Your task to perform on an android device: Empty the shopping cart on newegg.com. Add "apple airpods" to the cart on newegg.com Image 0: 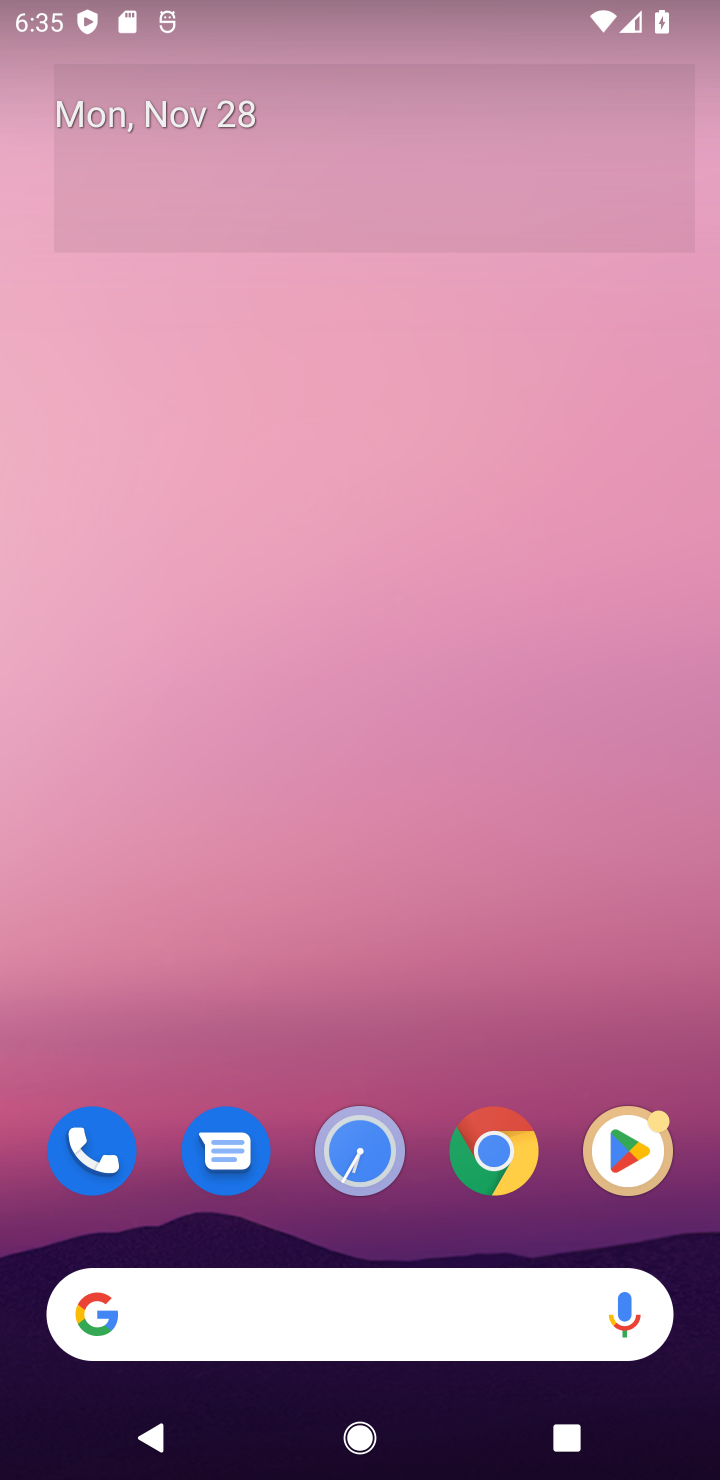
Step 0: click (521, 1304)
Your task to perform on an android device: Empty the shopping cart on newegg.com. Add "apple airpods" to the cart on newegg.com Image 1: 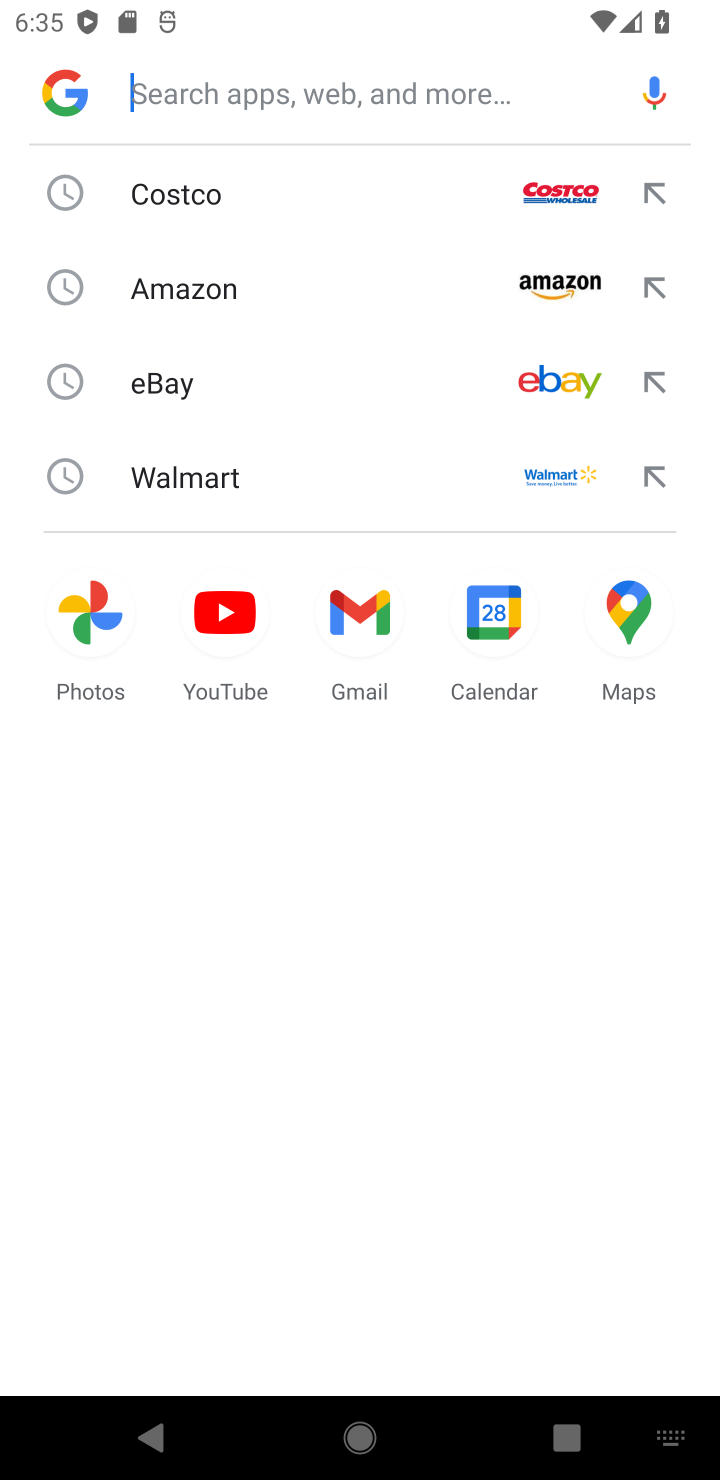
Step 1: type "apple airpod"
Your task to perform on an android device: Empty the shopping cart on newegg.com. Add "apple airpods" to the cart on newegg.com Image 2: 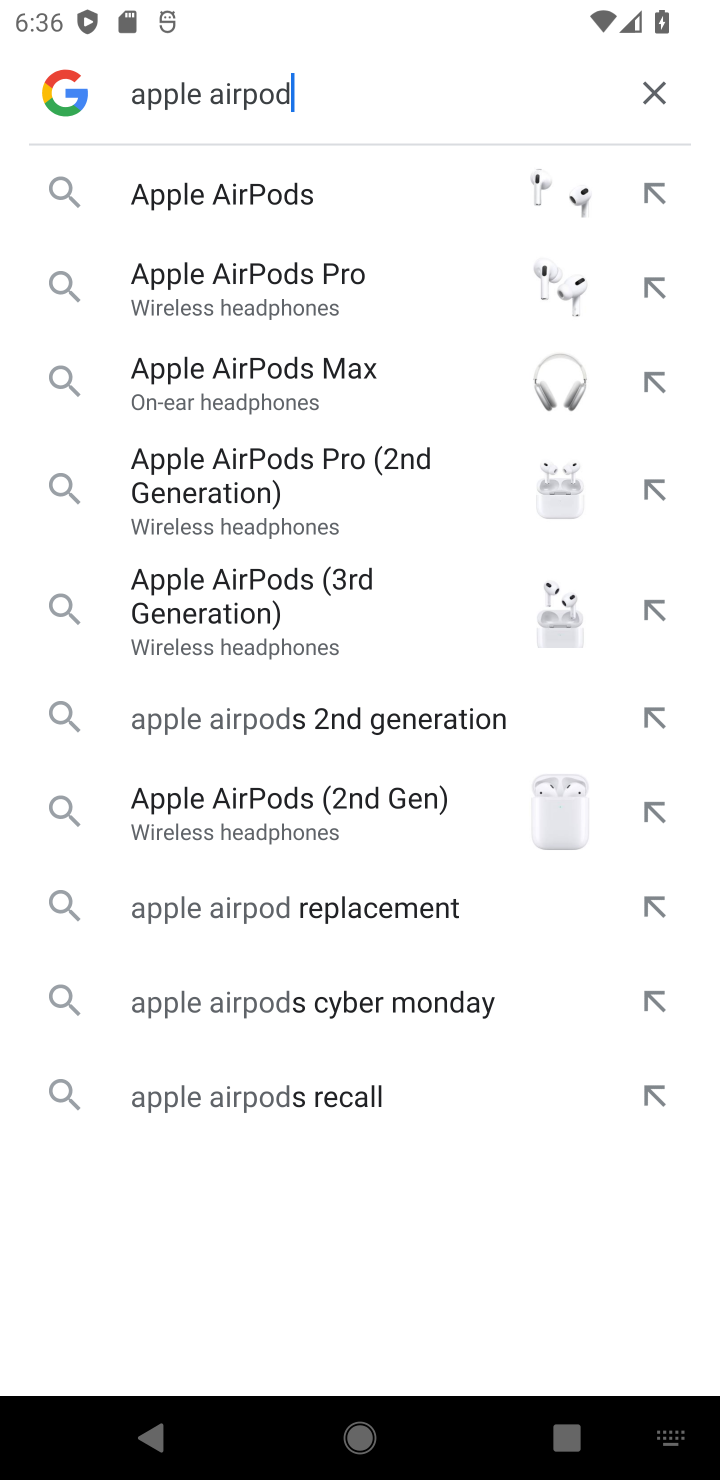
Step 2: click (232, 227)
Your task to perform on an android device: Empty the shopping cart on newegg.com. Add "apple airpods" to the cart on newegg.com Image 3: 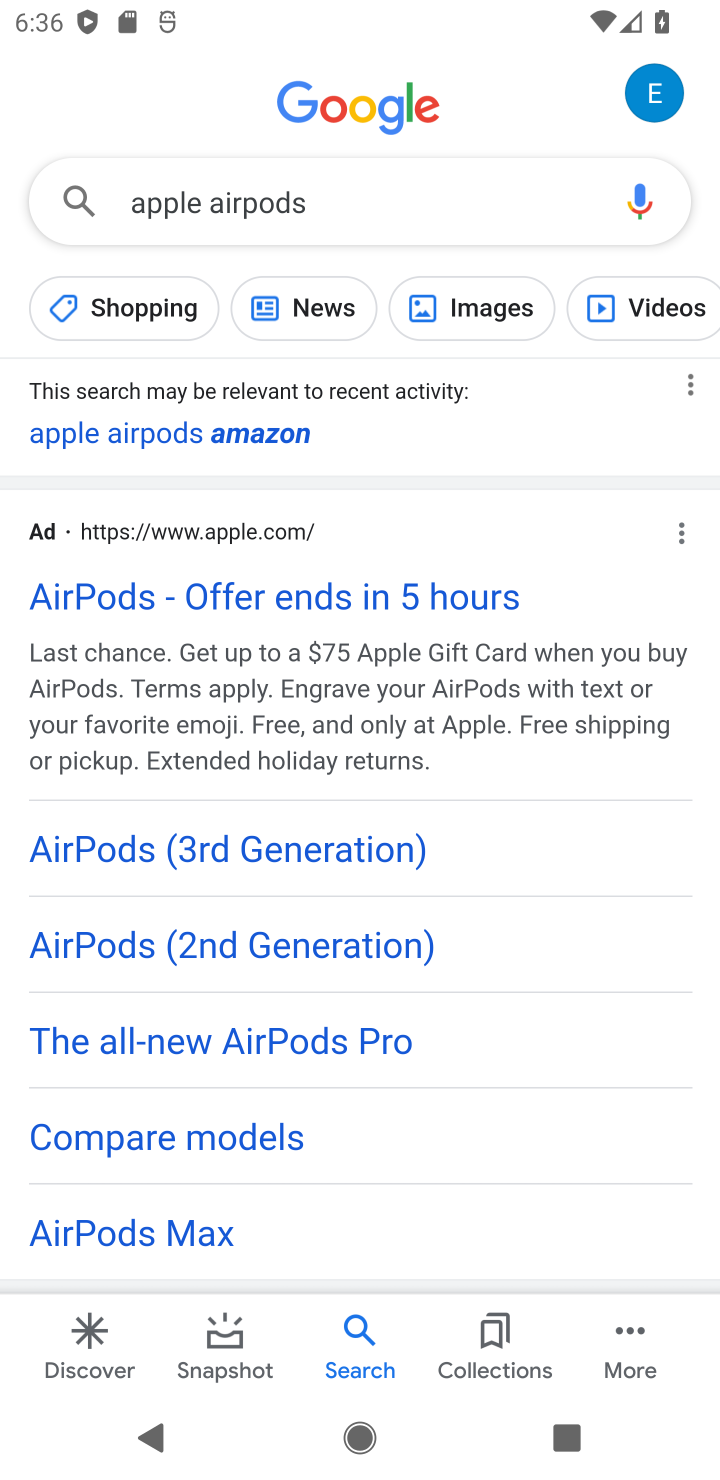
Step 3: click (131, 594)
Your task to perform on an android device: Empty the shopping cart on newegg.com. Add "apple airpods" to the cart on newegg.com Image 4: 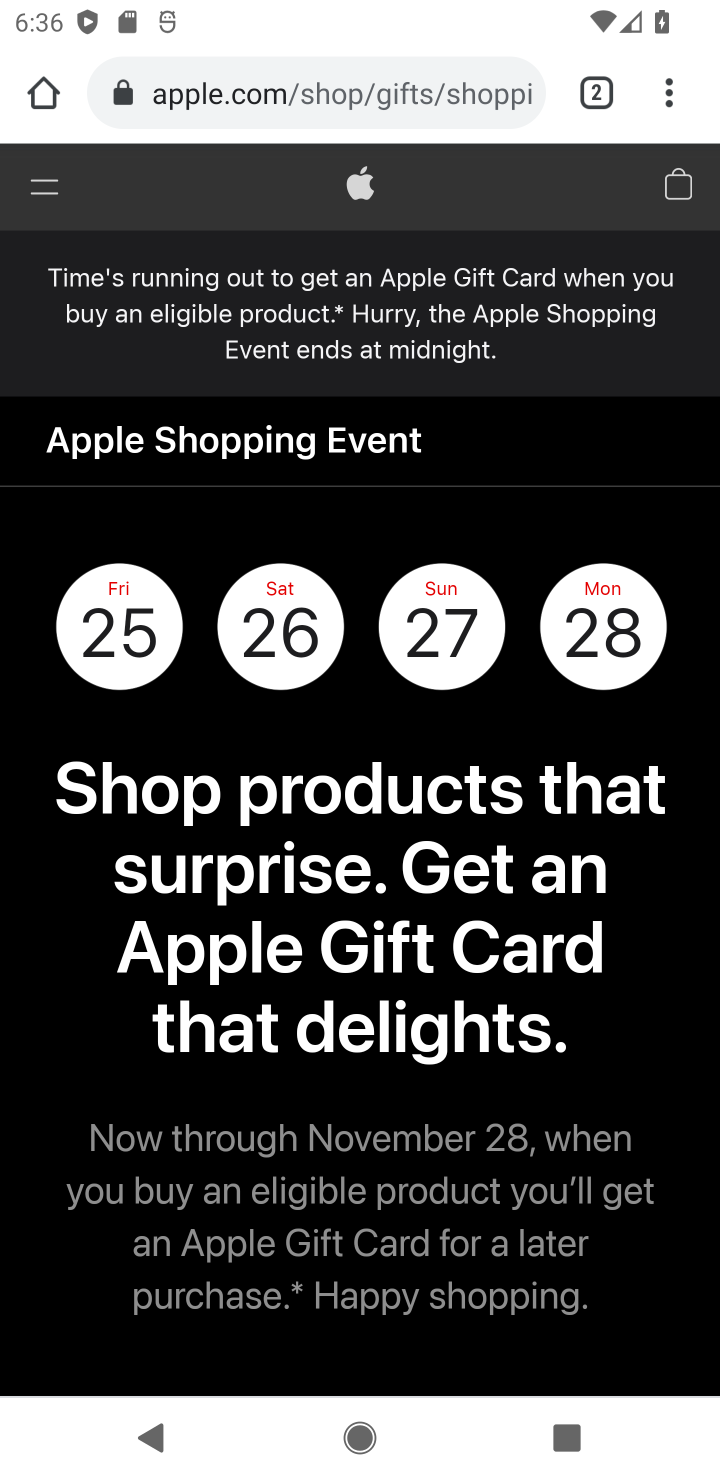
Step 4: task complete